Your task to perform on an android device: set the stopwatch Image 0: 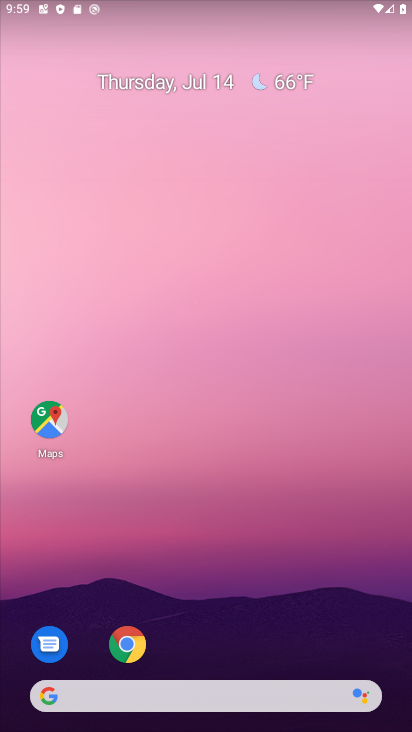
Step 0: drag from (290, 702) to (266, 230)
Your task to perform on an android device: set the stopwatch Image 1: 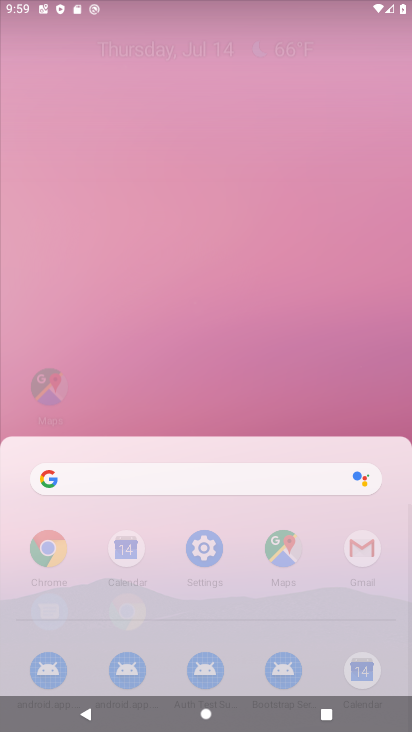
Step 1: drag from (195, 428) to (195, 49)
Your task to perform on an android device: set the stopwatch Image 2: 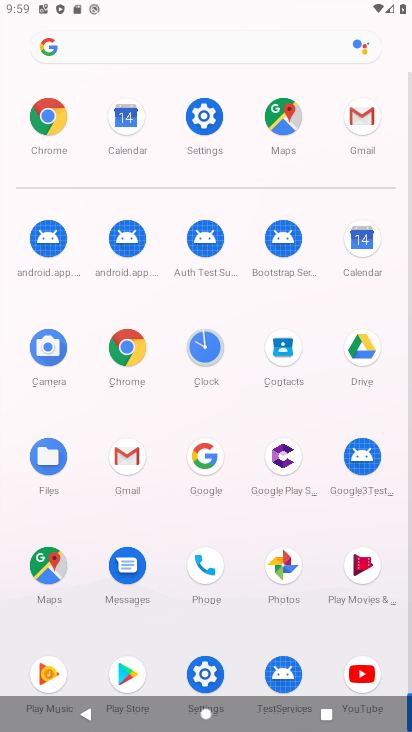
Step 2: click (135, 310)
Your task to perform on an android device: set the stopwatch Image 3: 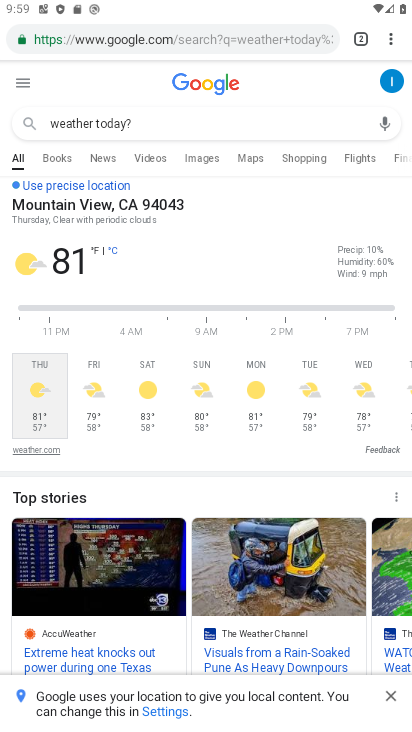
Step 3: press back button
Your task to perform on an android device: set the stopwatch Image 4: 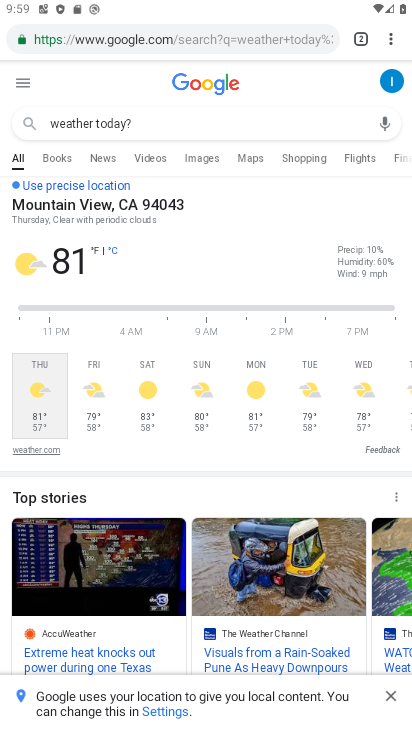
Step 4: press back button
Your task to perform on an android device: set the stopwatch Image 5: 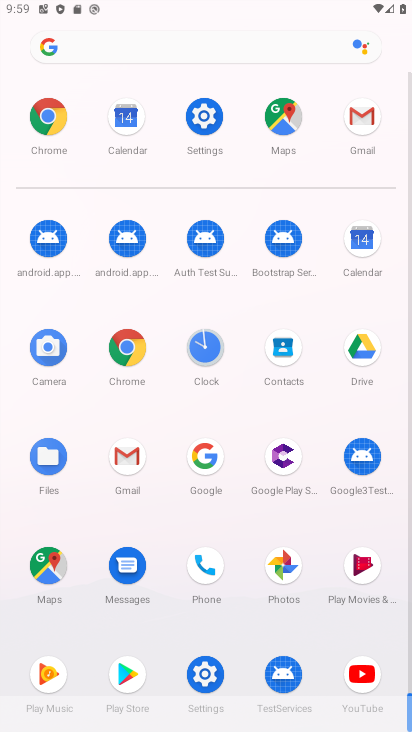
Step 5: click (222, 347)
Your task to perform on an android device: set the stopwatch Image 6: 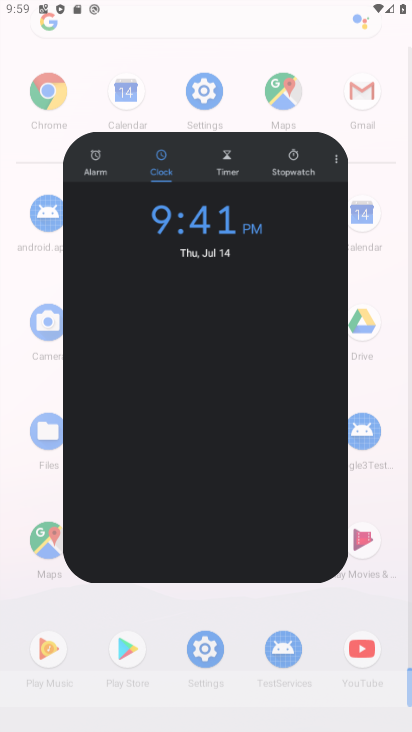
Step 6: click (214, 346)
Your task to perform on an android device: set the stopwatch Image 7: 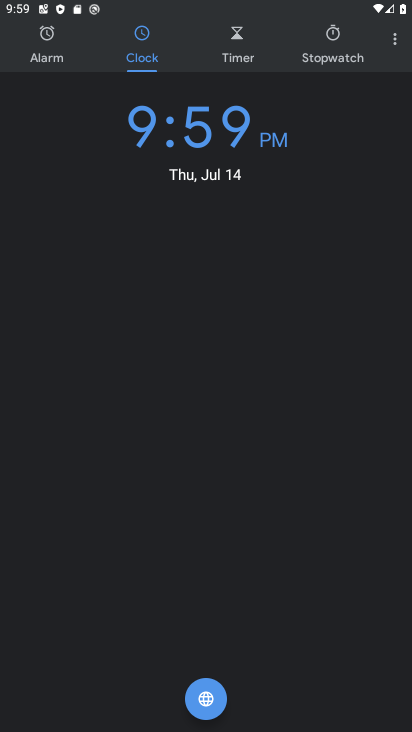
Step 7: click (341, 44)
Your task to perform on an android device: set the stopwatch Image 8: 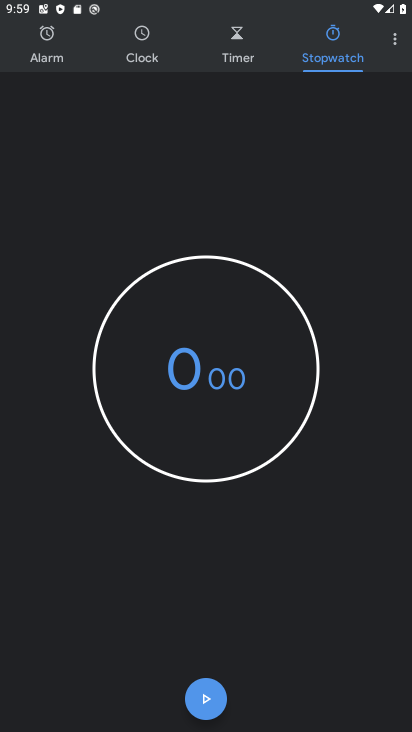
Step 8: click (195, 715)
Your task to perform on an android device: set the stopwatch Image 9: 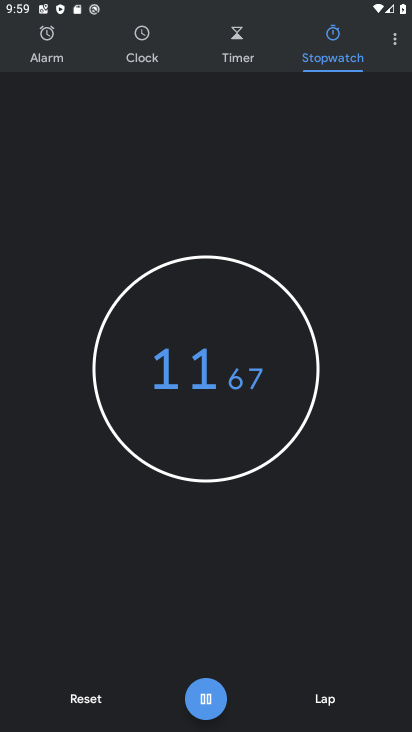
Step 9: click (211, 702)
Your task to perform on an android device: set the stopwatch Image 10: 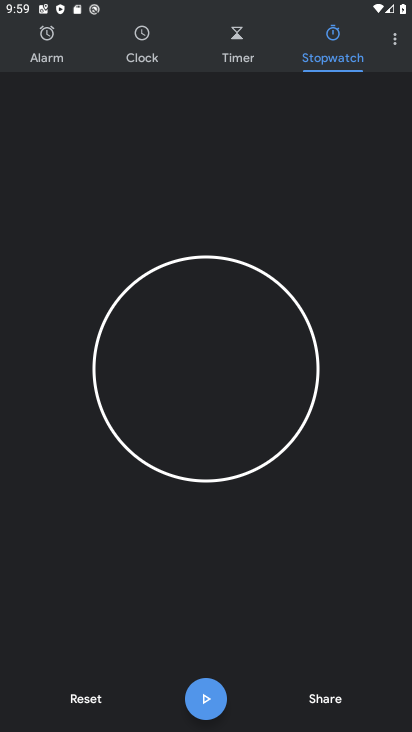
Step 10: click (205, 696)
Your task to perform on an android device: set the stopwatch Image 11: 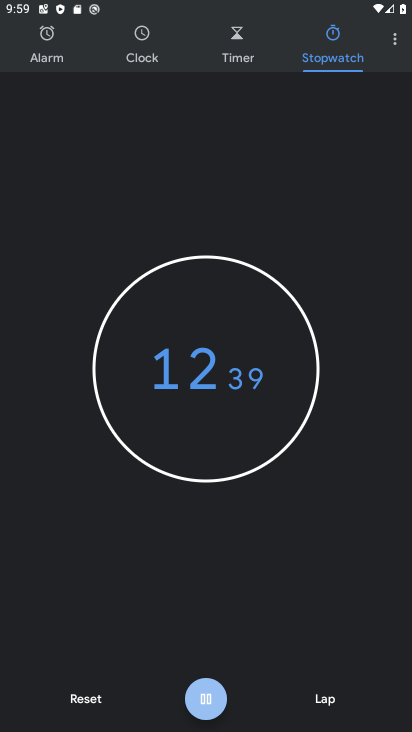
Step 11: click (205, 696)
Your task to perform on an android device: set the stopwatch Image 12: 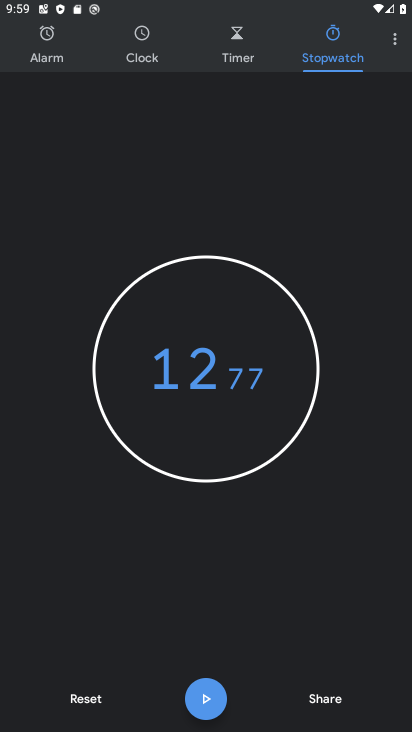
Step 12: task complete